Your task to perform on an android device: change timer sound Image 0: 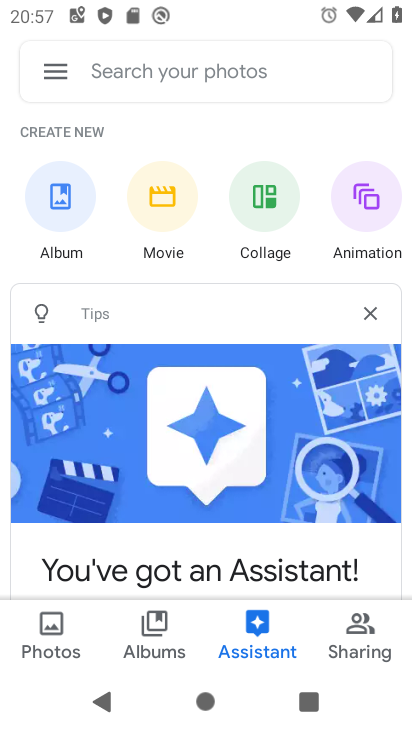
Step 0: press home button
Your task to perform on an android device: change timer sound Image 1: 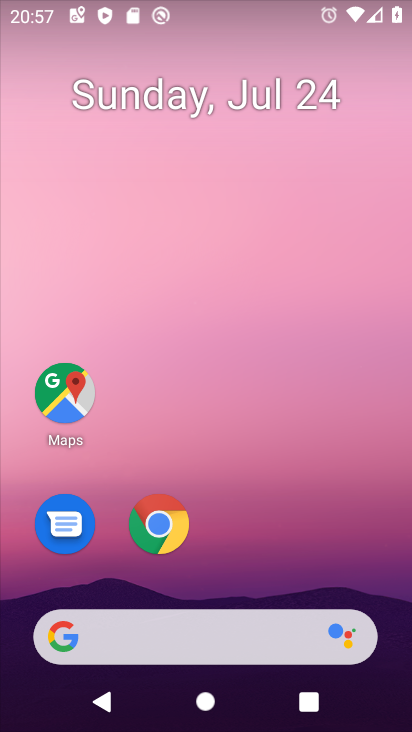
Step 1: drag from (300, 108) to (303, 39)
Your task to perform on an android device: change timer sound Image 2: 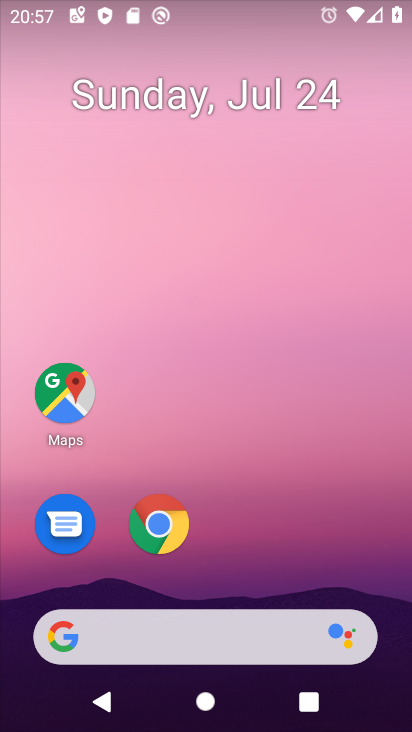
Step 2: drag from (232, 552) to (242, 15)
Your task to perform on an android device: change timer sound Image 3: 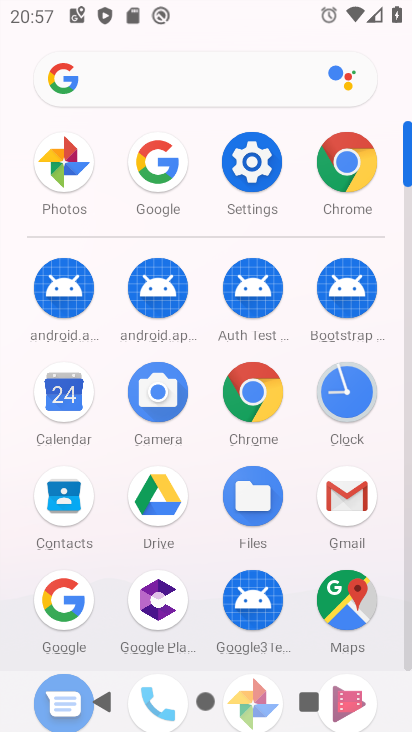
Step 3: click (356, 412)
Your task to perform on an android device: change timer sound Image 4: 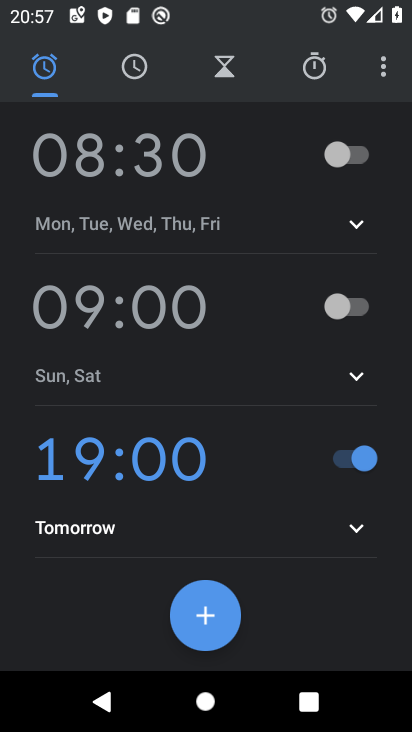
Step 4: click (377, 66)
Your task to perform on an android device: change timer sound Image 5: 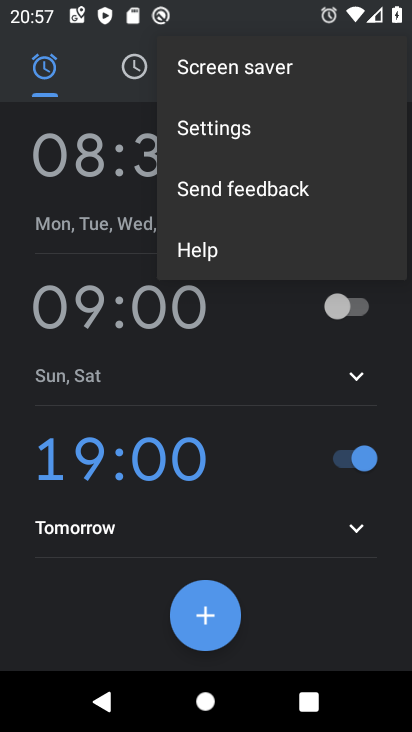
Step 5: click (237, 129)
Your task to perform on an android device: change timer sound Image 6: 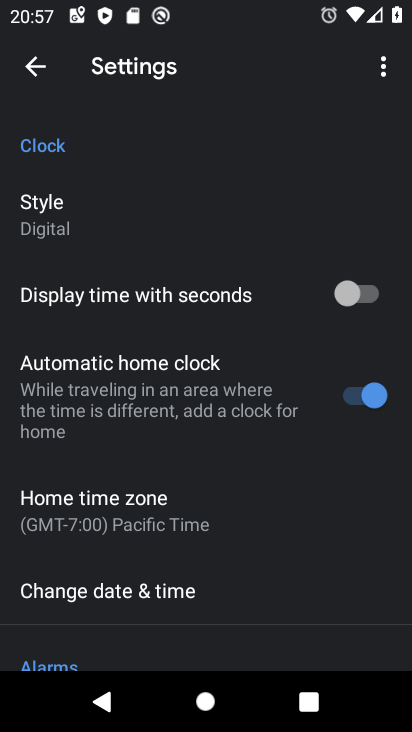
Step 6: drag from (251, 557) to (310, 51)
Your task to perform on an android device: change timer sound Image 7: 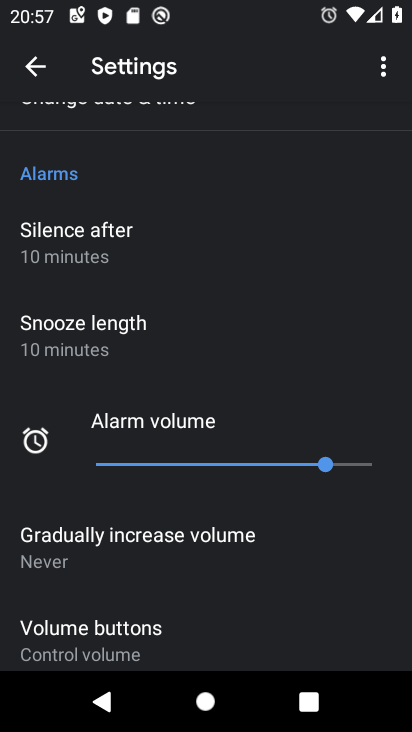
Step 7: drag from (248, 539) to (238, 24)
Your task to perform on an android device: change timer sound Image 8: 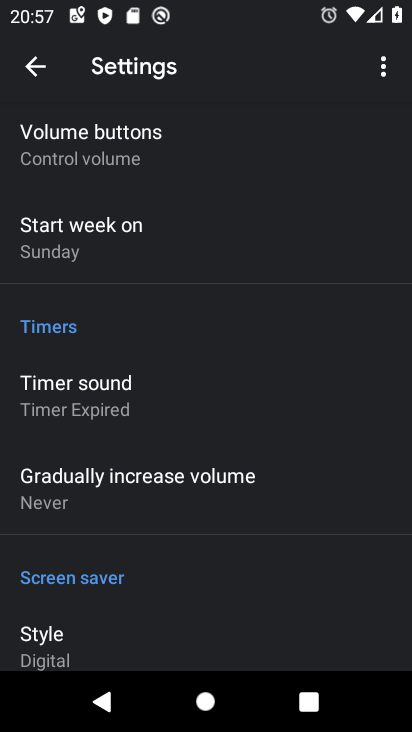
Step 8: click (118, 385)
Your task to perform on an android device: change timer sound Image 9: 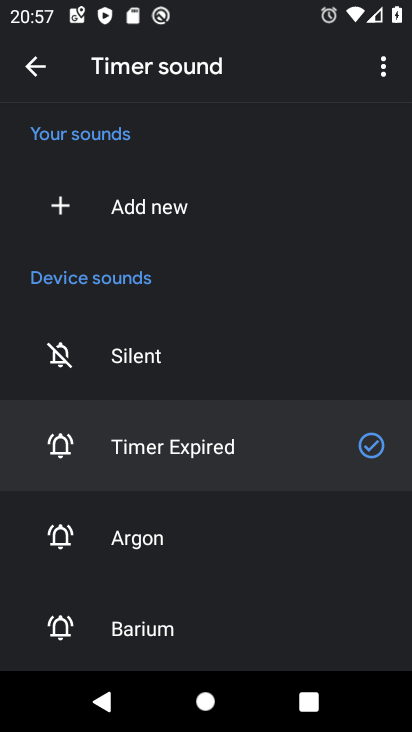
Step 9: click (136, 620)
Your task to perform on an android device: change timer sound Image 10: 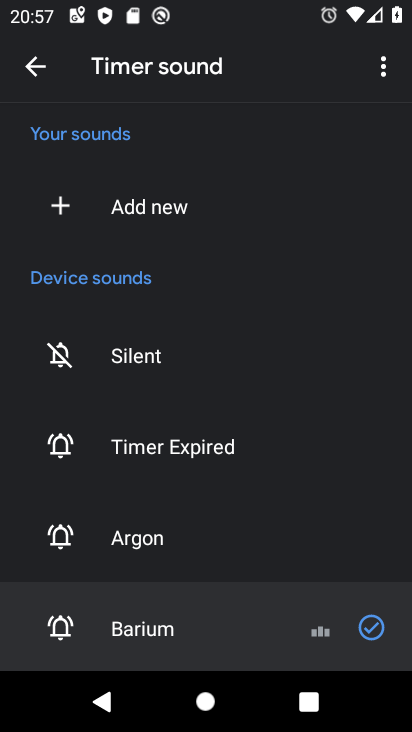
Step 10: task complete